Your task to perform on an android device: set the timer Image 0: 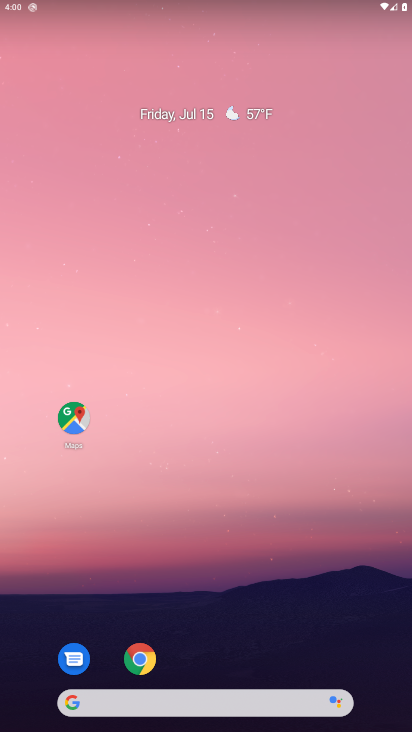
Step 0: drag from (199, 408) to (316, 104)
Your task to perform on an android device: set the timer Image 1: 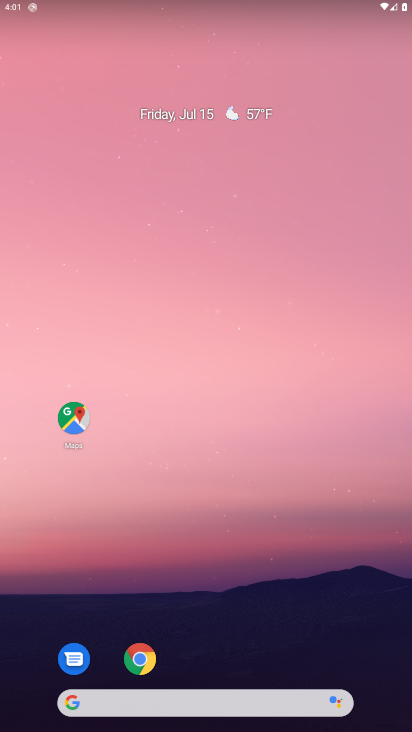
Step 1: drag from (73, 435) to (202, 0)
Your task to perform on an android device: set the timer Image 2: 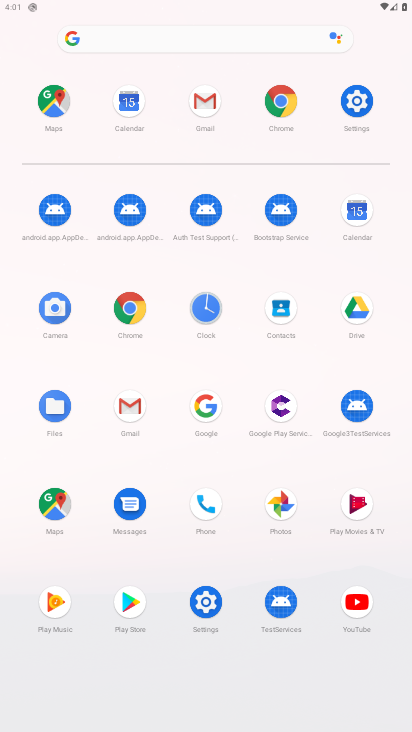
Step 2: click (200, 318)
Your task to perform on an android device: set the timer Image 3: 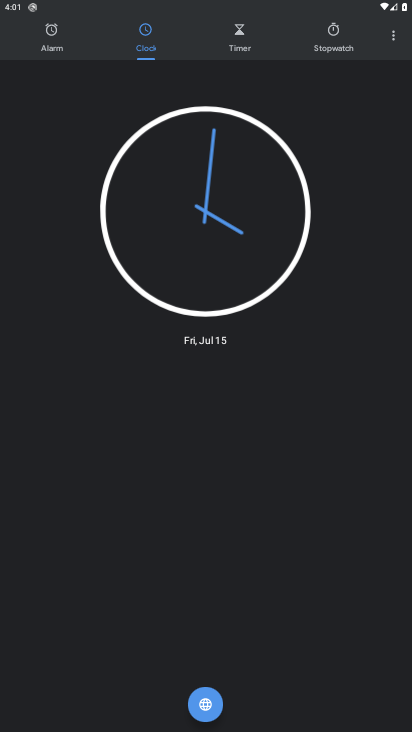
Step 3: click (242, 42)
Your task to perform on an android device: set the timer Image 4: 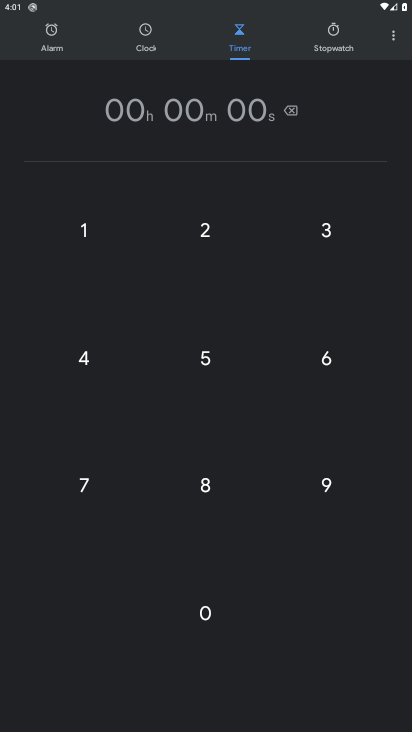
Step 4: click (211, 368)
Your task to perform on an android device: set the timer Image 5: 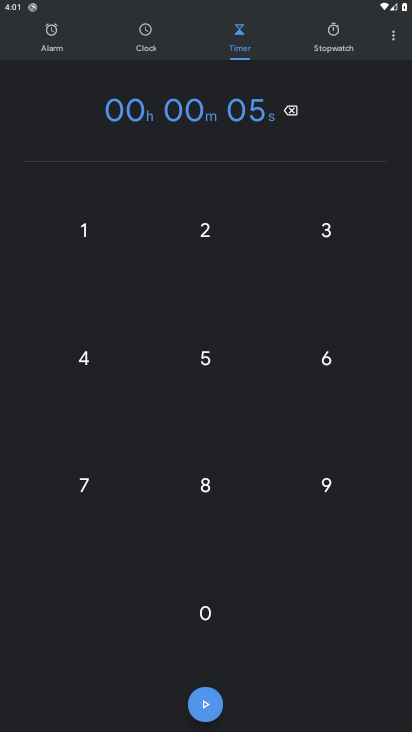
Step 5: click (226, 226)
Your task to perform on an android device: set the timer Image 6: 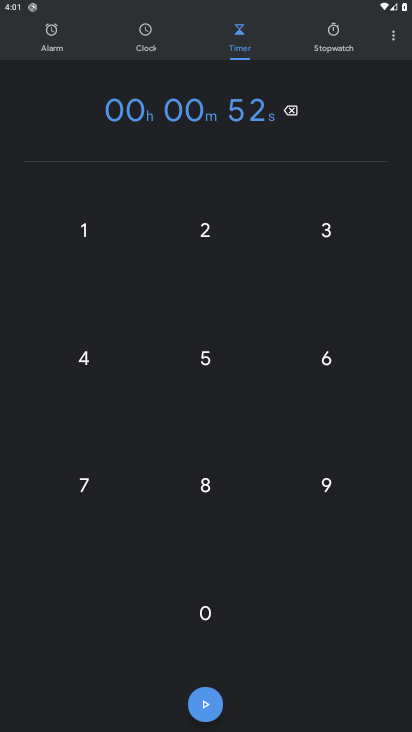
Step 6: task complete